Your task to perform on an android device: Open Google Chrome and open the bookmarks view Image 0: 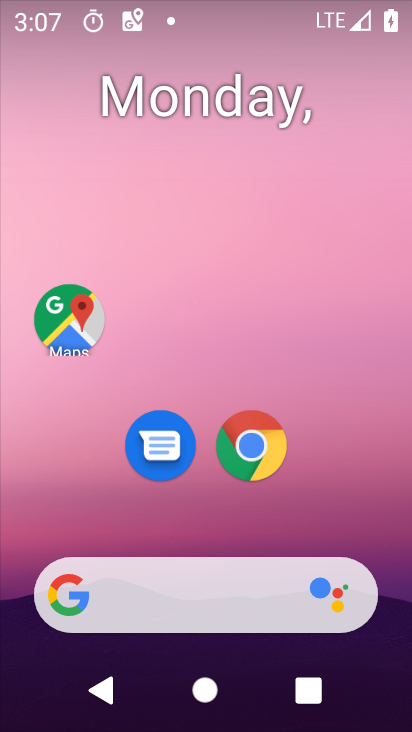
Step 0: drag from (201, 577) to (182, 168)
Your task to perform on an android device: Open Google Chrome and open the bookmarks view Image 1: 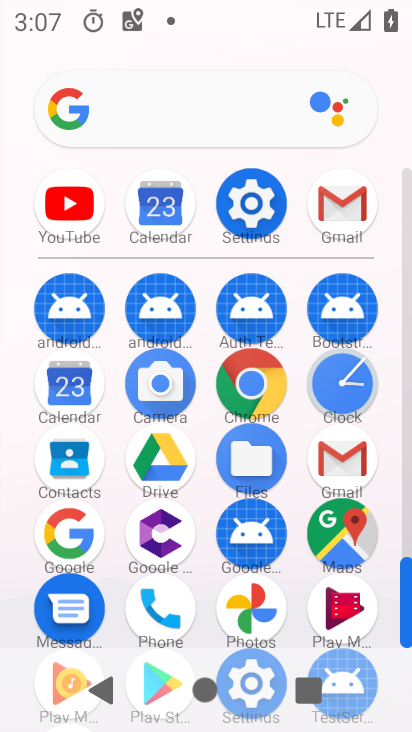
Step 1: click (228, 386)
Your task to perform on an android device: Open Google Chrome and open the bookmarks view Image 2: 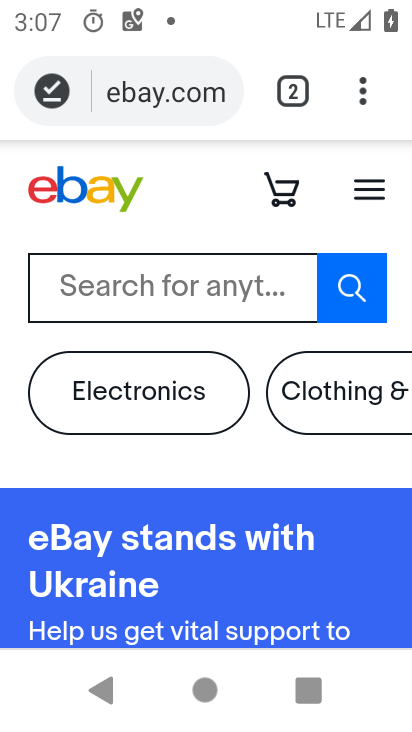
Step 2: drag from (363, 91) to (165, 341)
Your task to perform on an android device: Open Google Chrome and open the bookmarks view Image 3: 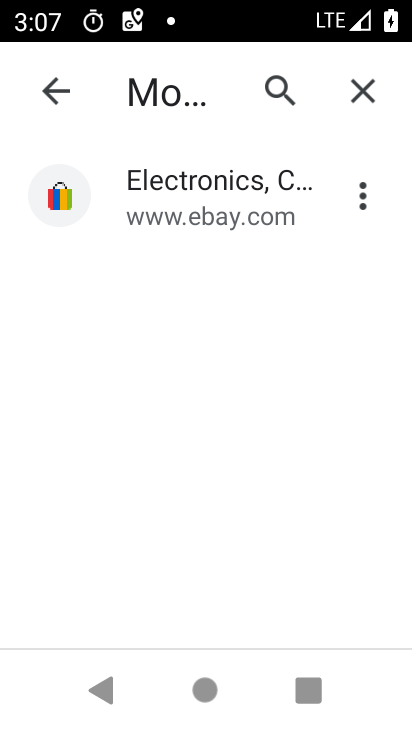
Step 3: click (207, 214)
Your task to perform on an android device: Open Google Chrome and open the bookmarks view Image 4: 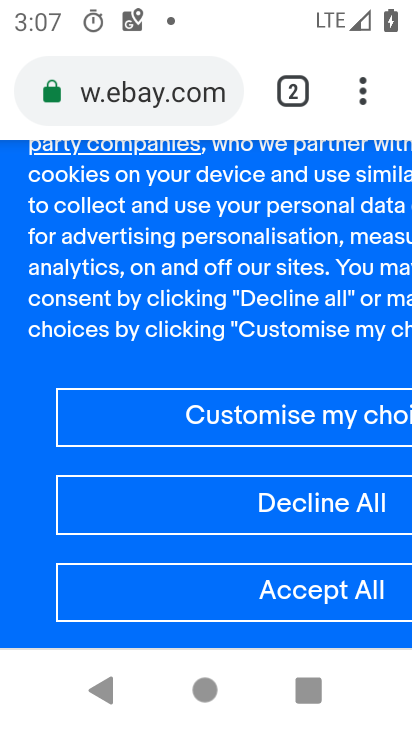
Step 4: task complete